Your task to perform on an android device: Open wifi settings Image 0: 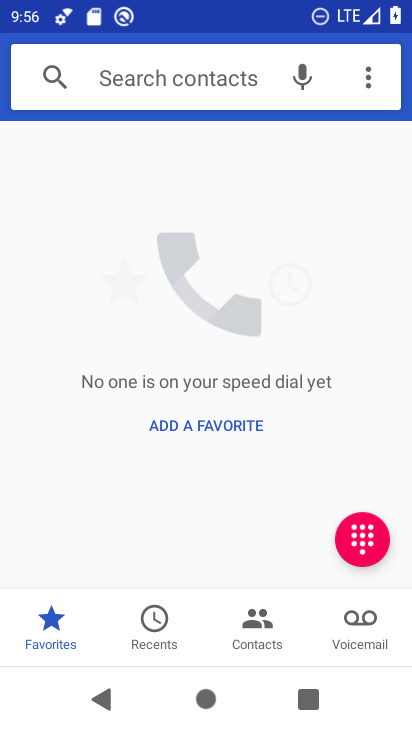
Step 0: press back button
Your task to perform on an android device: Open wifi settings Image 1: 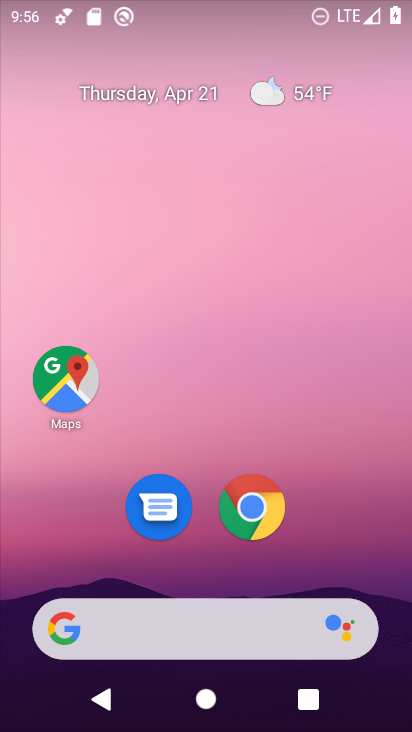
Step 1: drag from (215, 3) to (221, 438)
Your task to perform on an android device: Open wifi settings Image 2: 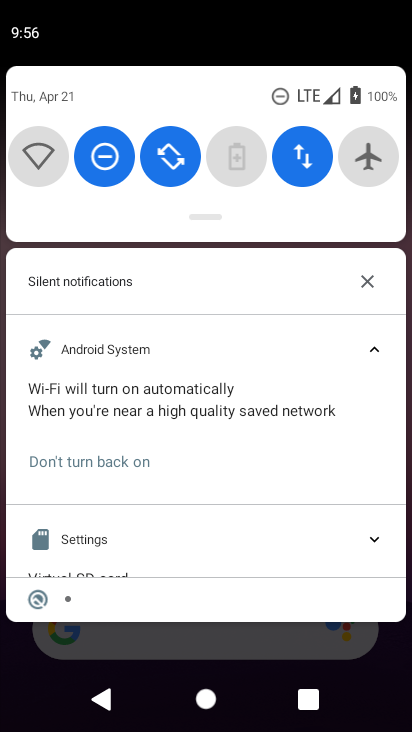
Step 2: drag from (188, 189) to (189, 470)
Your task to perform on an android device: Open wifi settings Image 3: 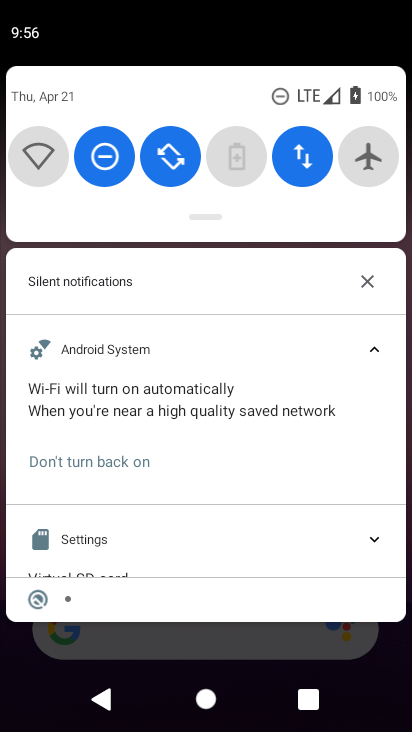
Step 3: drag from (136, 186) to (193, 548)
Your task to perform on an android device: Open wifi settings Image 4: 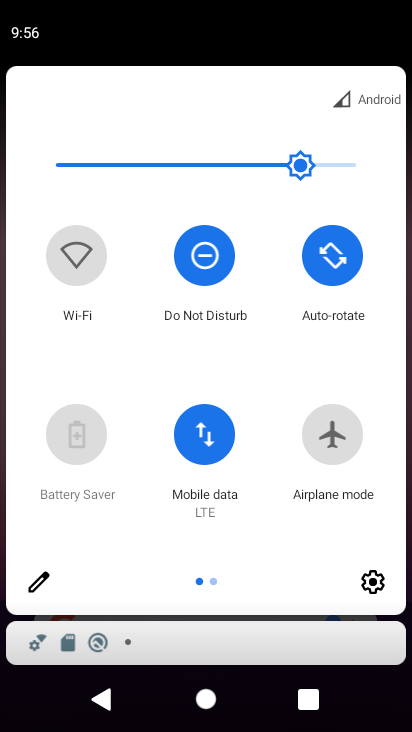
Step 4: drag from (373, 365) to (33, 423)
Your task to perform on an android device: Open wifi settings Image 5: 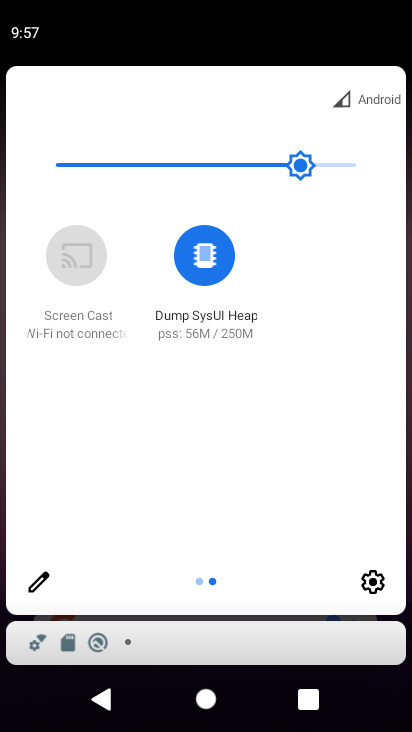
Step 5: click (368, 584)
Your task to perform on an android device: Open wifi settings Image 6: 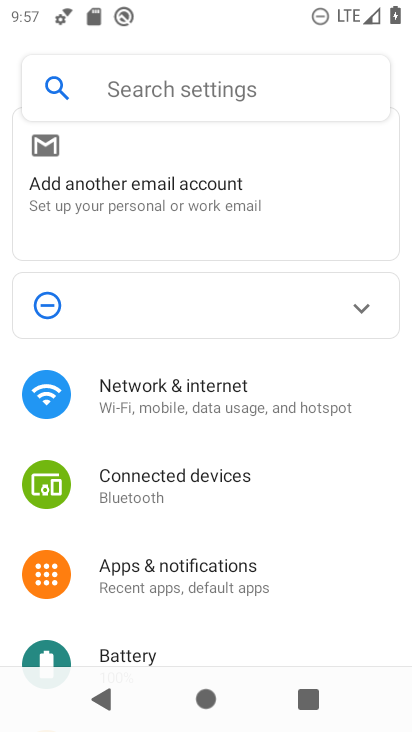
Step 6: click (199, 404)
Your task to perform on an android device: Open wifi settings Image 7: 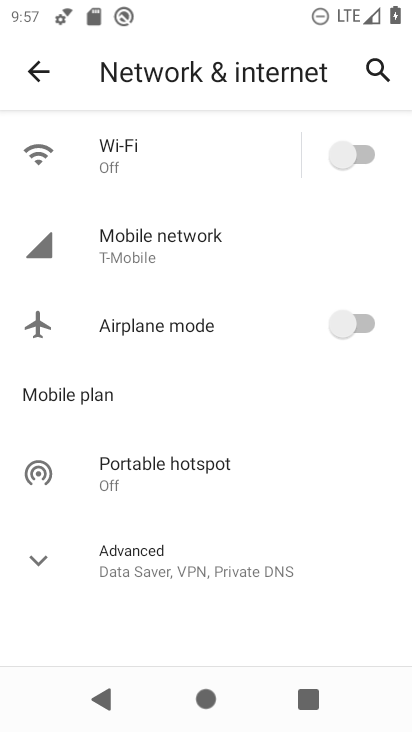
Step 7: click (115, 153)
Your task to perform on an android device: Open wifi settings Image 8: 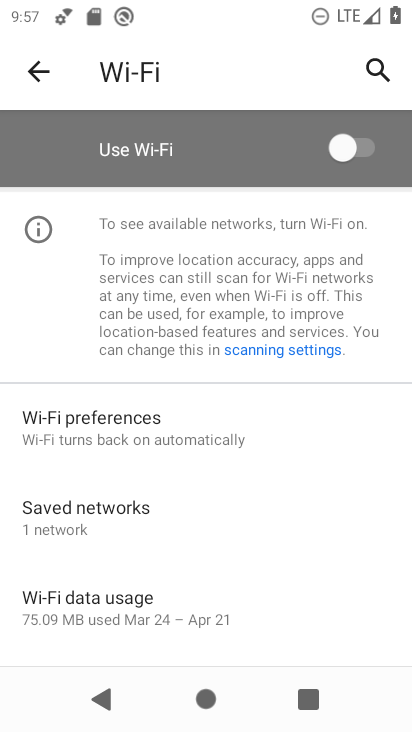
Step 8: click (366, 142)
Your task to perform on an android device: Open wifi settings Image 9: 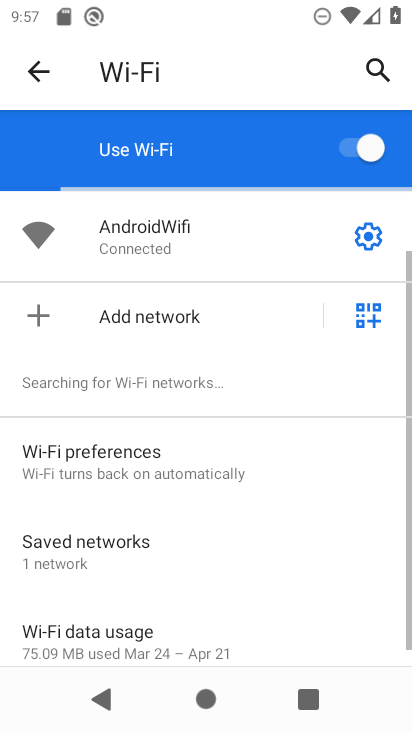
Step 9: click (368, 232)
Your task to perform on an android device: Open wifi settings Image 10: 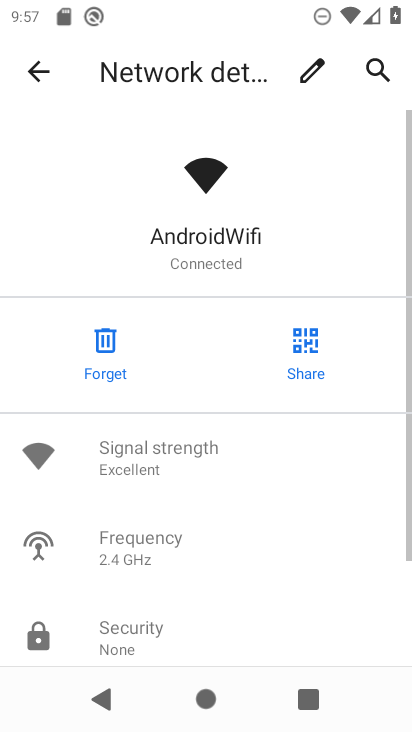
Step 10: drag from (212, 613) to (182, 331)
Your task to perform on an android device: Open wifi settings Image 11: 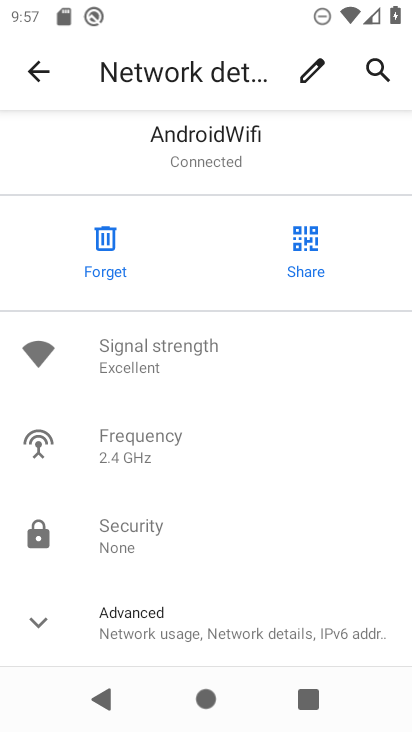
Step 11: click (204, 632)
Your task to perform on an android device: Open wifi settings Image 12: 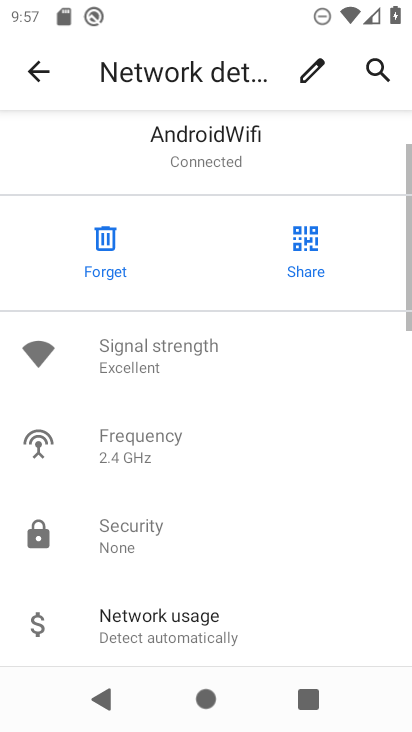
Step 12: task complete